Your task to perform on an android device: Open the calendar and show me this week's events Image 0: 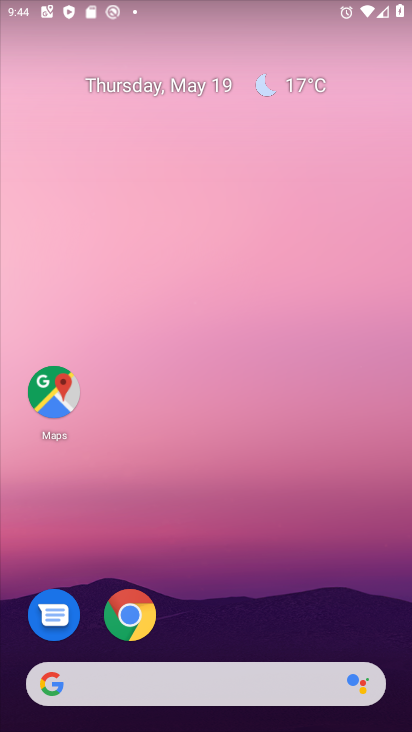
Step 0: drag from (287, 589) to (268, 127)
Your task to perform on an android device: Open the calendar and show me this week's events Image 1: 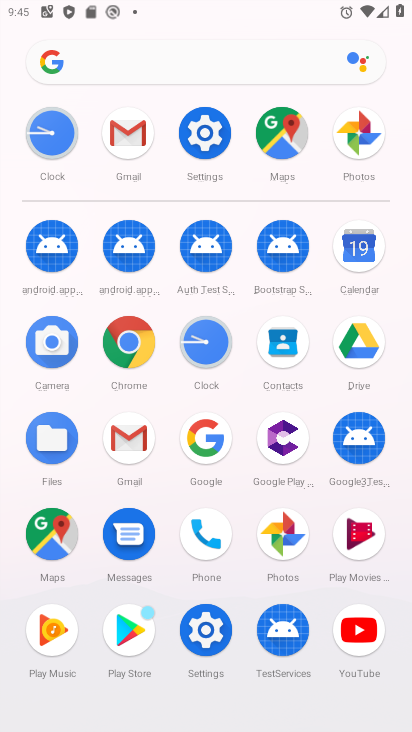
Step 1: click (364, 250)
Your task to perform on an android device: Open the calendar and show me this week's events Image 2: 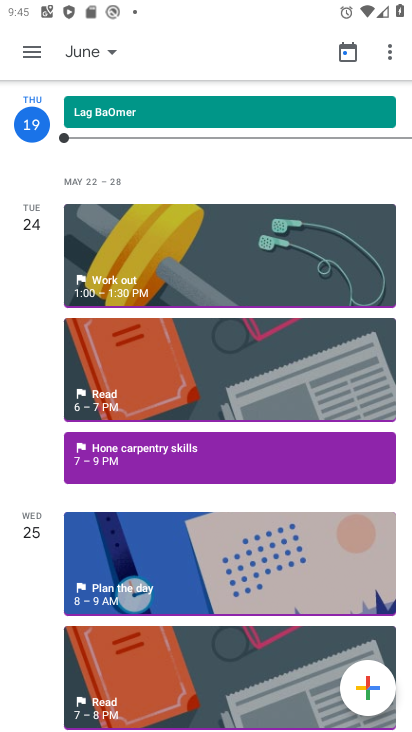
Step 2: click (101, 45)
Your task to perform on an android device: Open the calendar and show me this week's events Image 3: 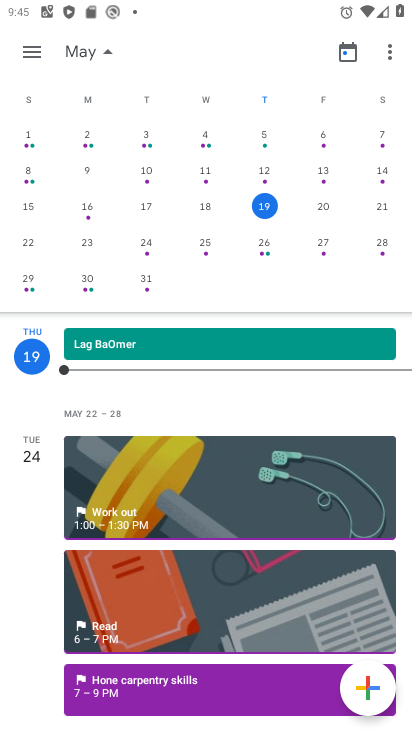
Step 3: click (334, 205)
Your task to perform on an android device: Open the calendar and show me this week's events Image 4: 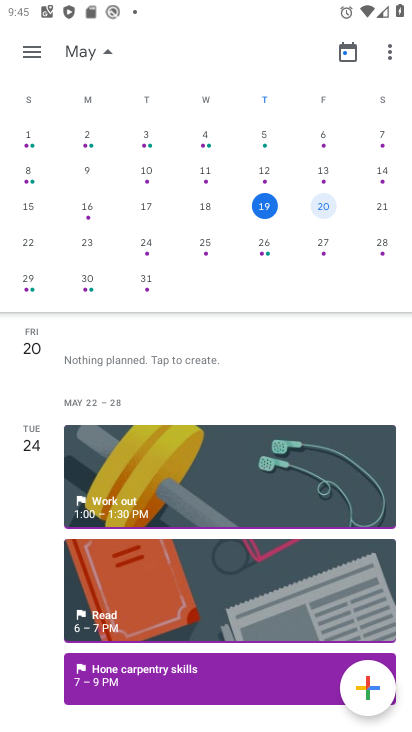
Step 4: click (388, 218)
Your task to perform on an android device: Open the calendar and show me this week's events Image 5: 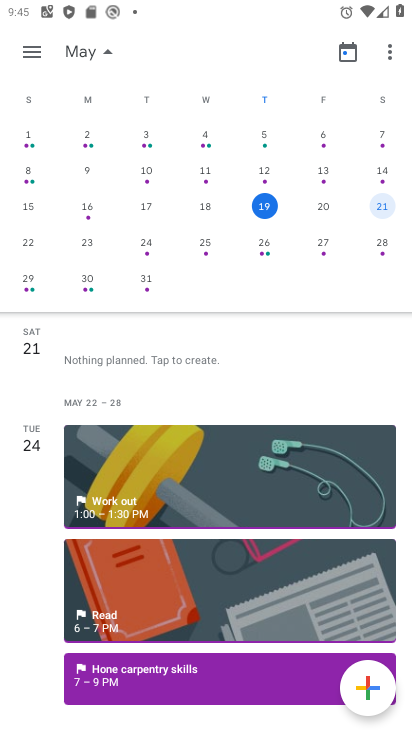
Step 5: click (100, 59)
Your task to perform on an android device: Open the calendar and show me this week's events Image 6: 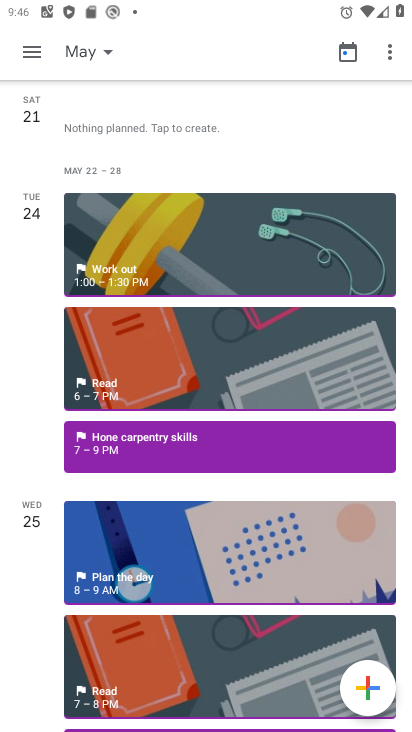
Step 6: task complete